Your task to perform on an android device: turn on notifications settings in the gmail app Image 0: 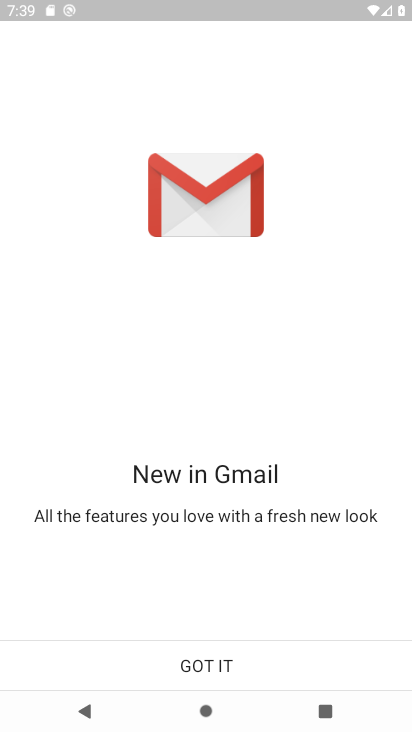
Step 0: press home button
Your task to perform on an android device: turn on notifications settings in the gmail app Image 1: 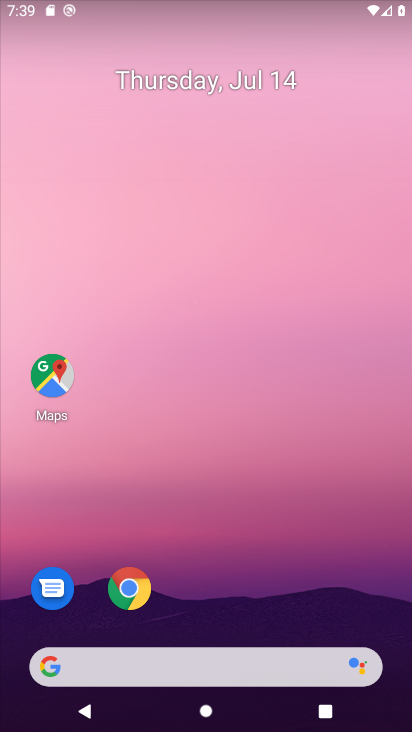
Step 1: drag from (203, 562) to (193, 124)
Your task to perform on an android device: turn on notifications settings in the gmail app Image 2: 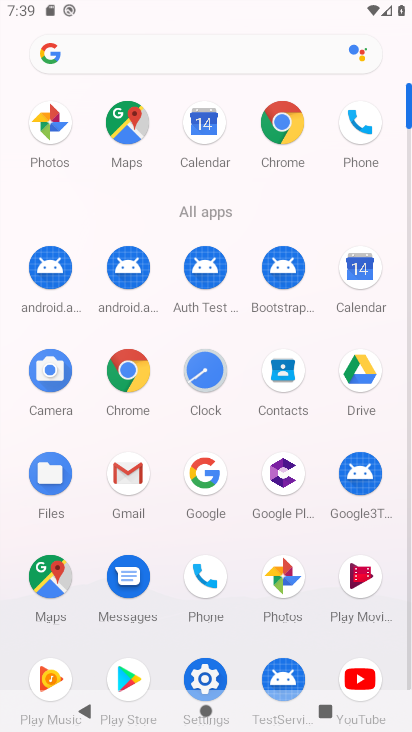
Step 2: click (125, 486)
Your task to perform on an android device: turn on notifications settings in the gmail app Image 3: 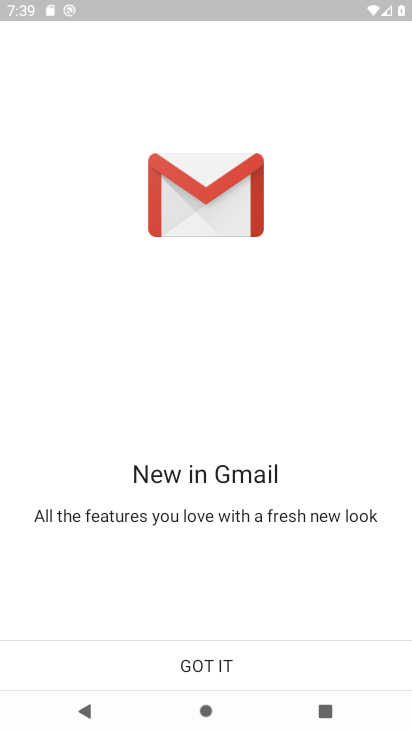
Step 3: click (206, 656)
Your task to perform on an android device: turn on notifications settings in the gmail app Image 4: 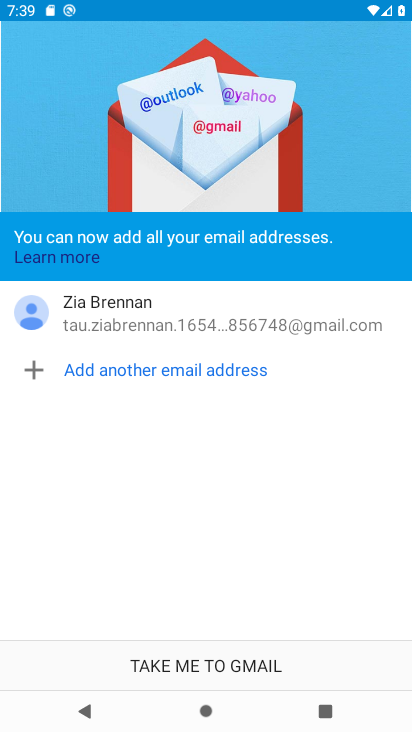
Step 4: click (204, 656)
Your task to perform on an android device: turn on notifications settings in the gmail app Image 5: 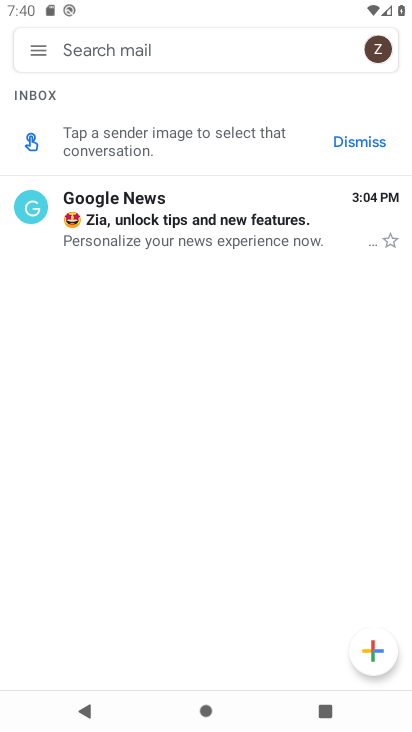
Step 5: click (23, 48)
Your task to perform on an android device: turn on notifications settings in the gmail app Image 6: 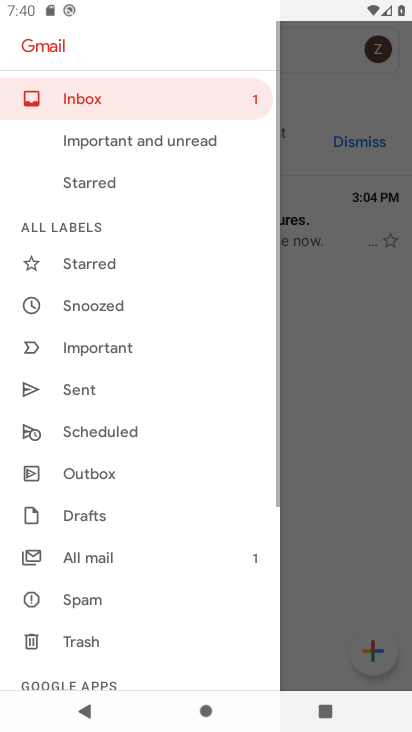
Step 6: drag from (82, 458) to (65, 178)
Your task to perform on an android device: turn on notifications settings in the gmail app Image 7: 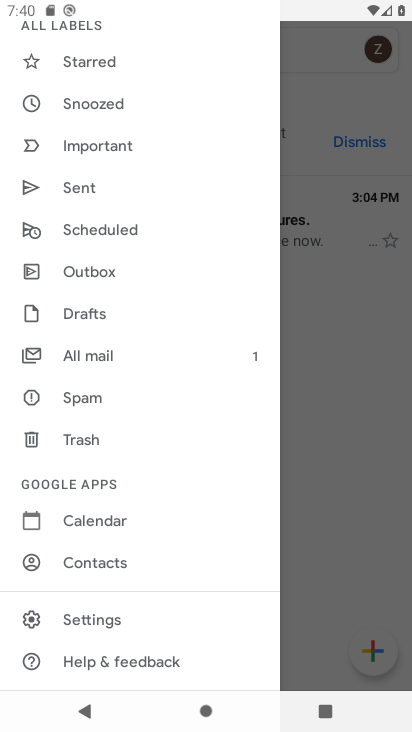
Step 7: click (71, 626)
Your task to perform on an android device: turn on notifications settings in the gmail app Image 8: 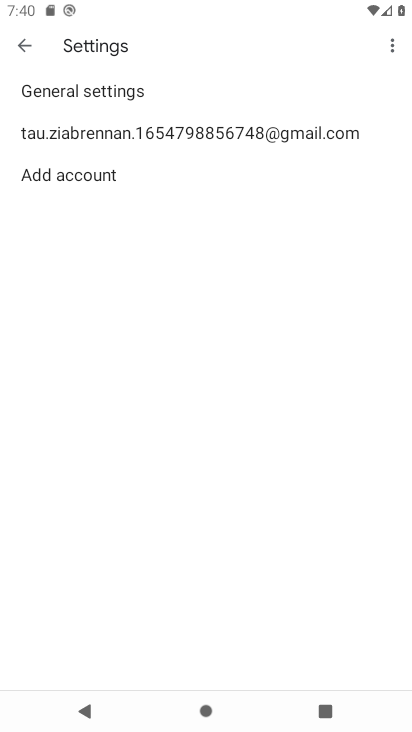
Step 8: click (74, 130)
Your task to perform on an android device: turn on notifications settings in the gmail app Image 9: 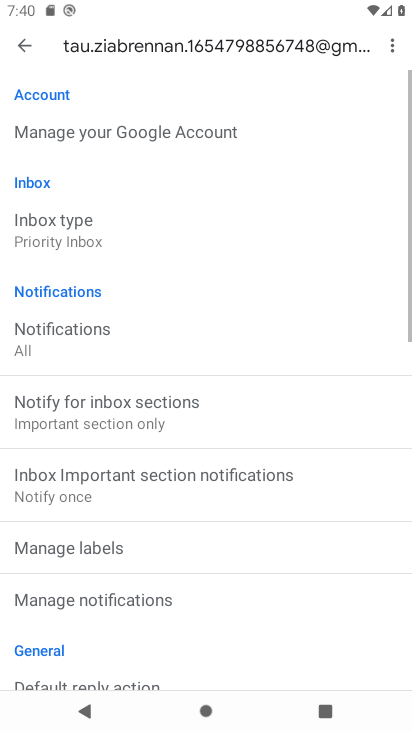
Step 9: click (37, 48)
Your task to perform on an android device: turn on notifications settings in the gmail app Image 10: 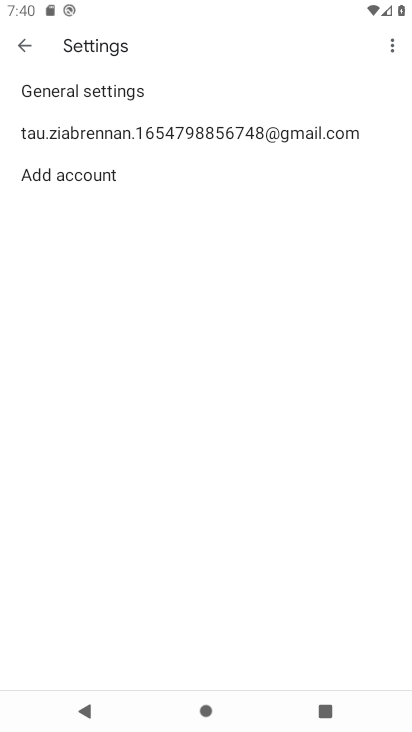
Step 10: click (86, 90)
Your task to perform on an android device: turn on notifications settings in the gmail app Image 11: 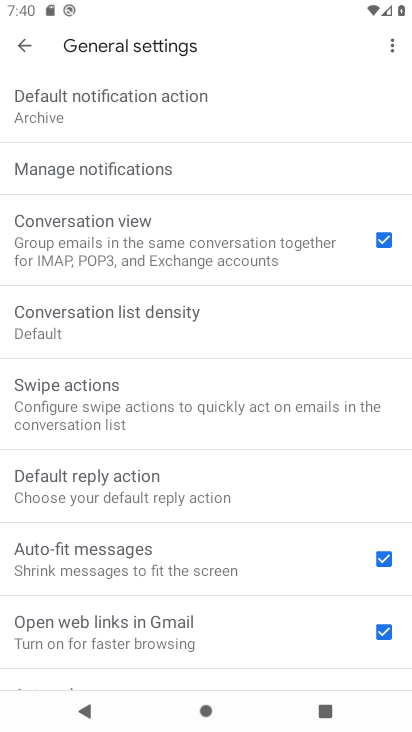
Step 11: click (98, 181)
Your task to perform on an android device: turn on notifications settings in the gmail app Image 12: 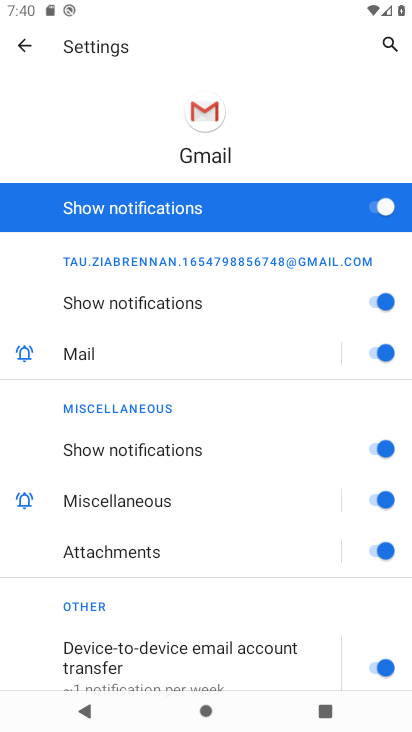
Step 12: task complete